Your task to perform on an android device: toggle show notifications on the lock screen Image 0: 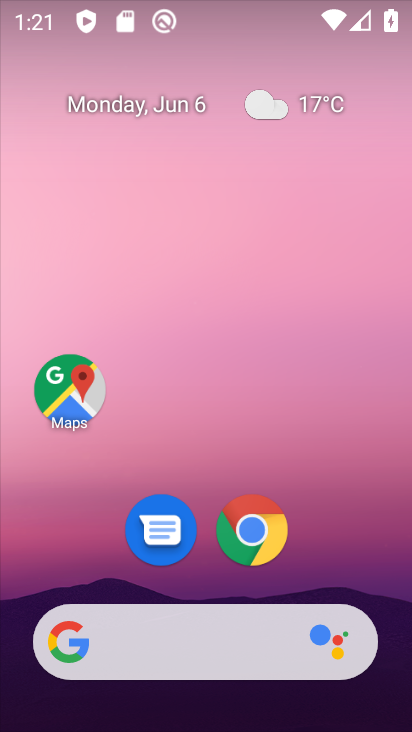
Step 0: drag from (306, 551) to (317, 245)
Your task to perform on an android device: toggle show notifications on the lock screen Image 1: 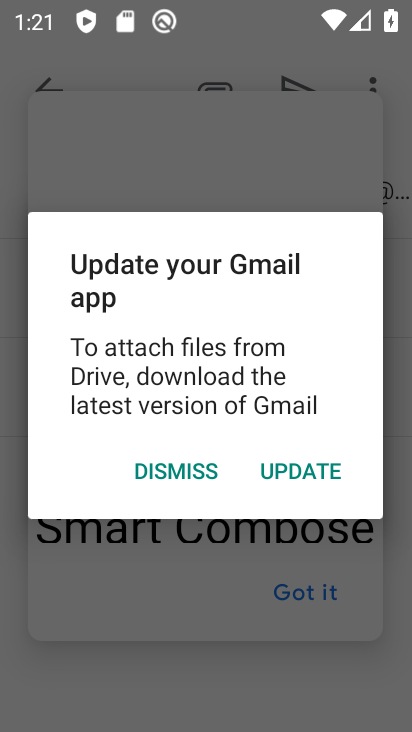
Step 1: drag from (304, 588) to (320, 194)
Your task to perform on an android device: toggle show notifications on the lock screen Image 2: 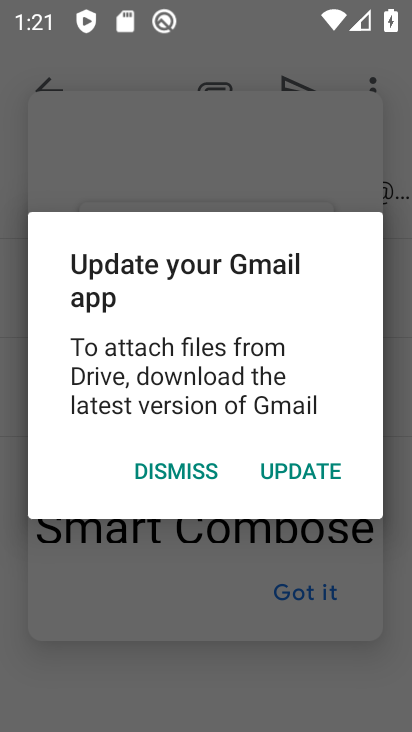
Step 2: press home button
Your task to perform on an android device: toggle show notifications on the lock screen Image 3: 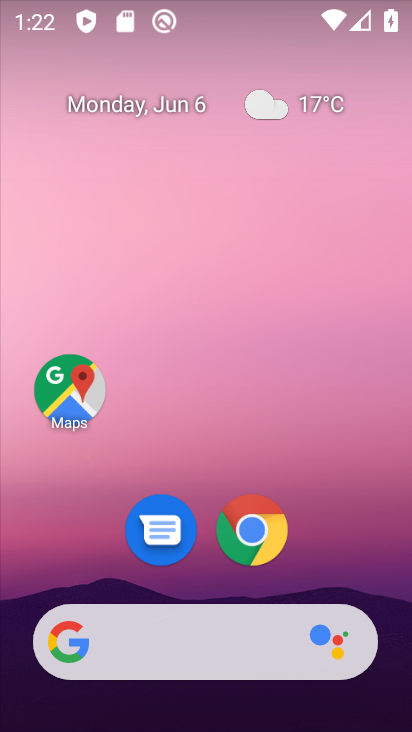
Step 3: drag from (282, 542) to (292, 190)
Your task to perform on an android device: toggle show notifications on the lock screen Image 4: 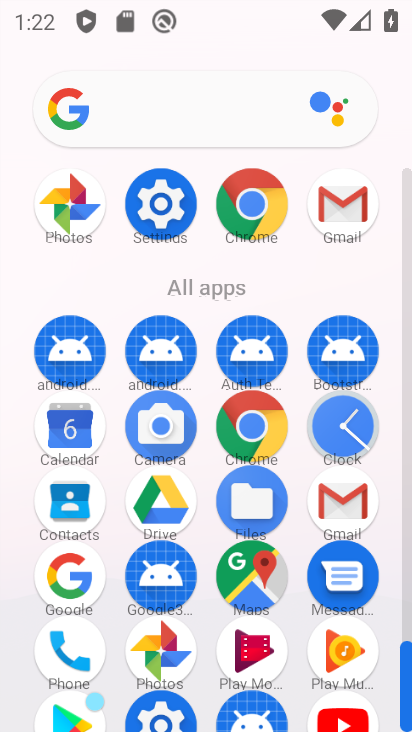
Step 4: click (169, 196)
Your task to perform on an android device: toggle show notifications on the lock screen Image 5: 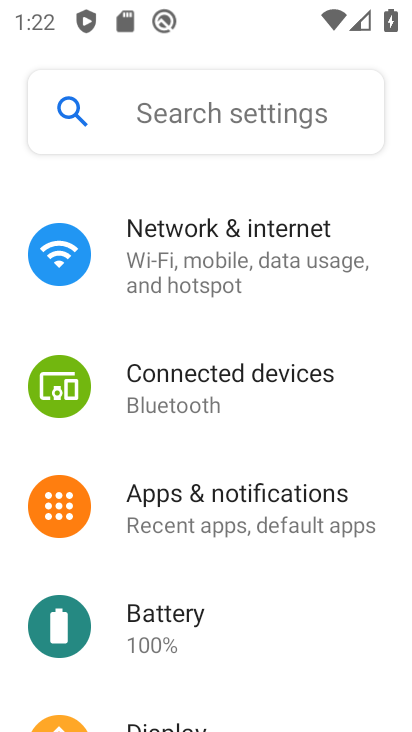
Step 5: click (206, 504)
Your task to perform on an android device: toggle show notifications on the lock screen Image 6: 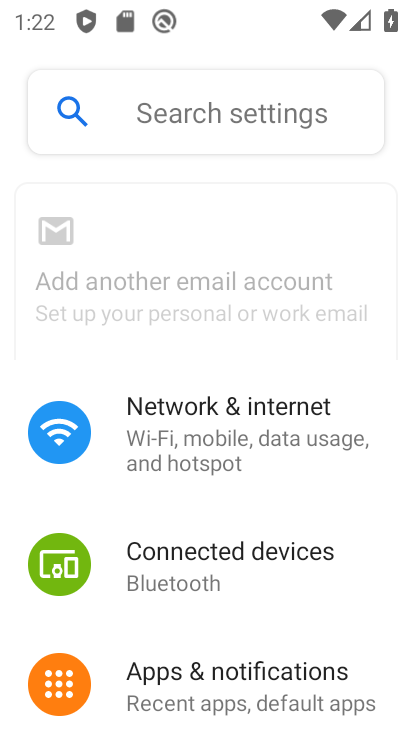
Step 6: click (192, 679)
Your task to perform on an android device: toggle show notifications on the lock screen Image 7: 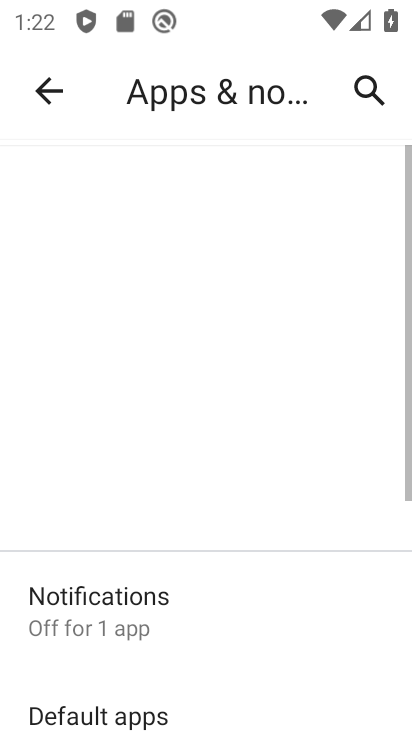
Step 7: click (171, 614)
Your task to perform on an android device: toggle show notifications on the lock screen Image 8: 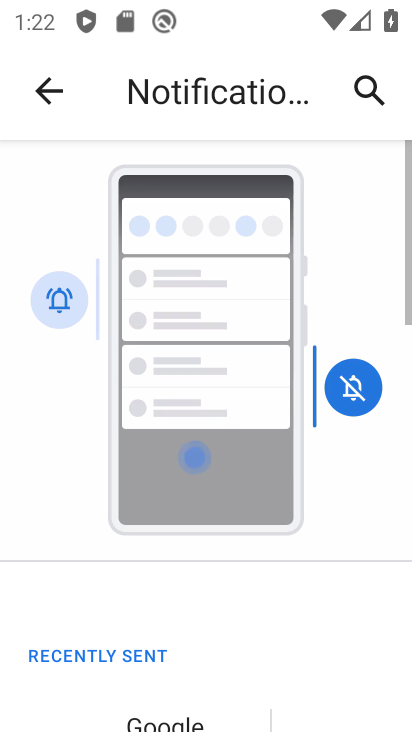
Step 8: drag from (180, 672) to (197, 239)
Your task to perform on an android device: toggle show notifications on the lock screen Image 9: 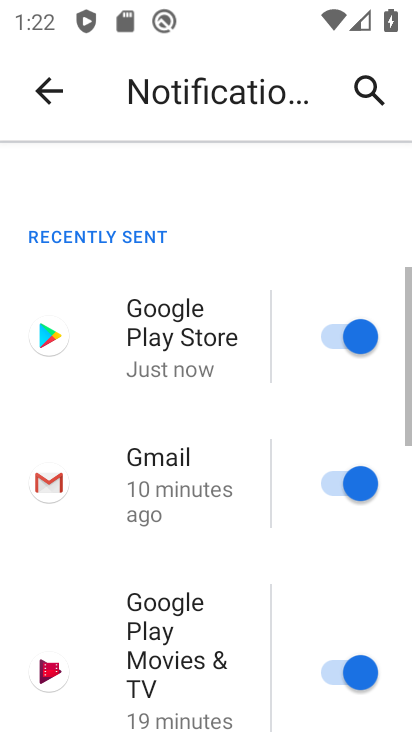
Step 9: drag from (151, 560) to (184, 290)
Your task to perform on an android device: toggle show notifications on the lock screen Image 10: 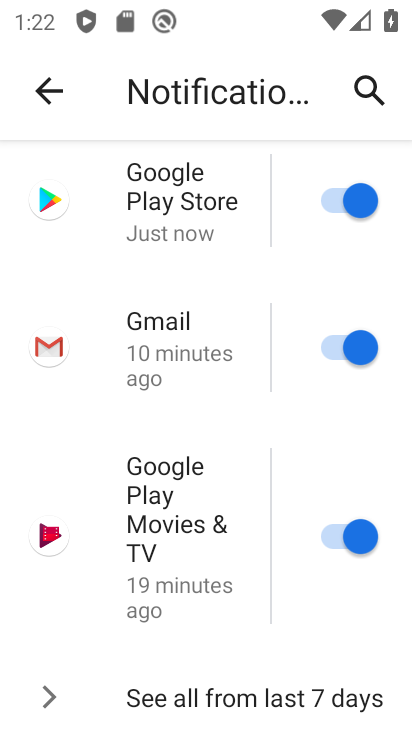
Step 10: drag from (144, 617) to (179, 294)
Your task to perform on an android device: toggle show notifications on the lock screen Image 11: 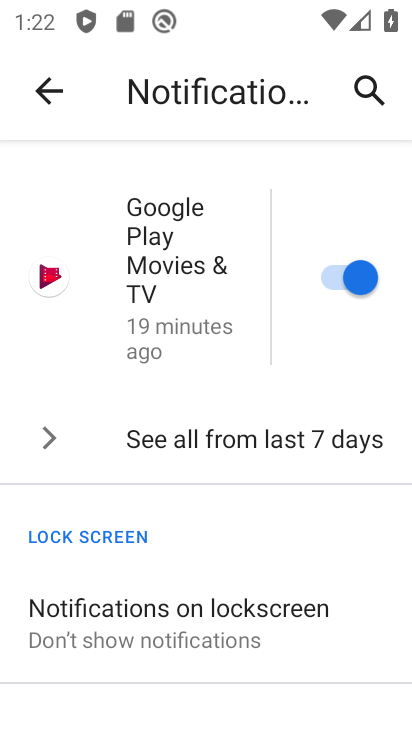
Step 11: click (146, 618)
Your task to perform on an android device: toggle show notifications on the lock screen Image 12: 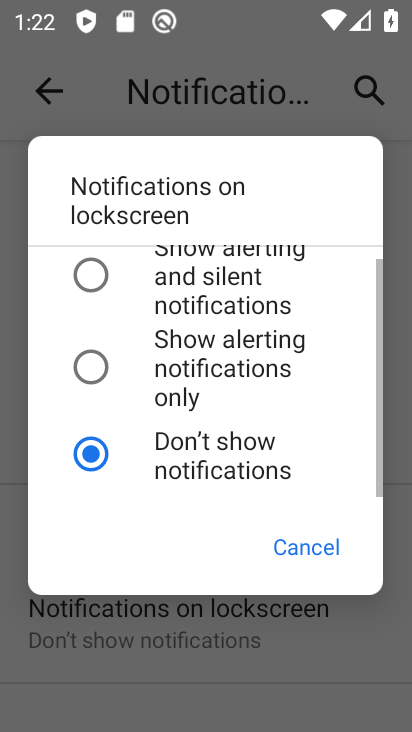
Step 12: click (139, 289)
Your task to perform on an android device: toggle show notifications on the lock screen Image 13: 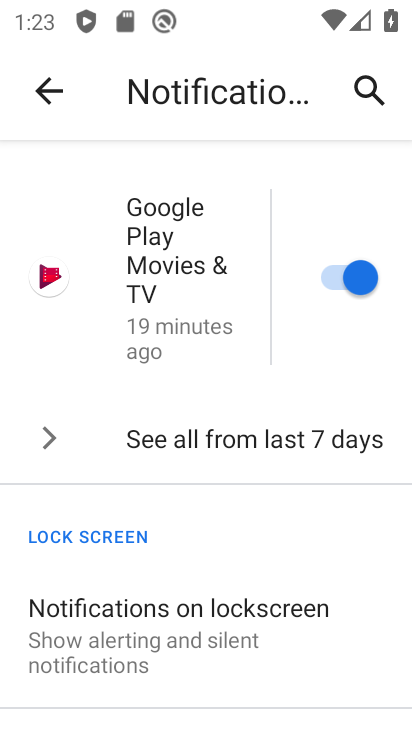
Step 13: task complete